Your task to perform on an android device: Open Wikipedia Image 0: 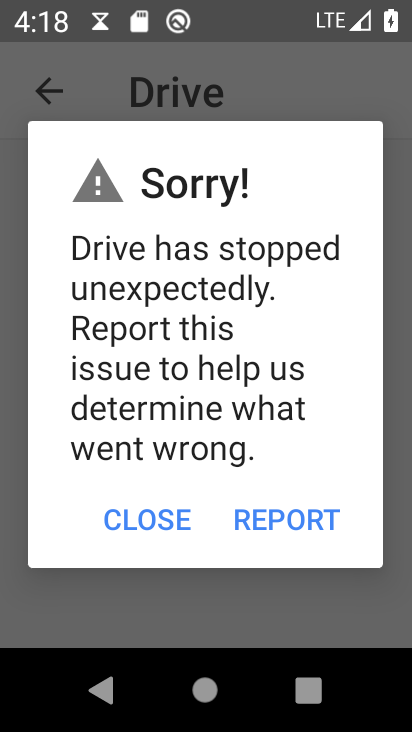
Step 0: press home button
Your task to perform on an android device: Open Wikipedia Image 1: 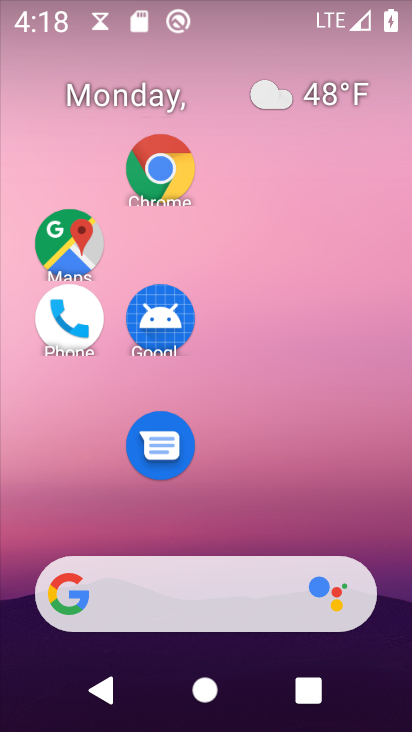
Step 1: click (156, 163)
Your task to perform on an android device: Open Wikipedia Image 2: 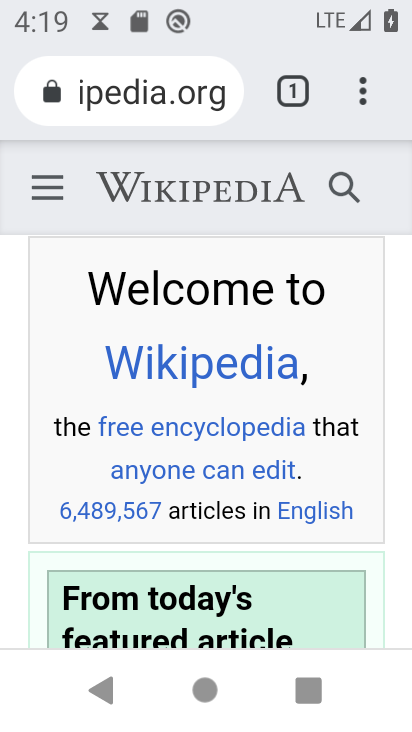
Step 2: task complete